Your task to perform on an android device: What's the weather today? Image 0: 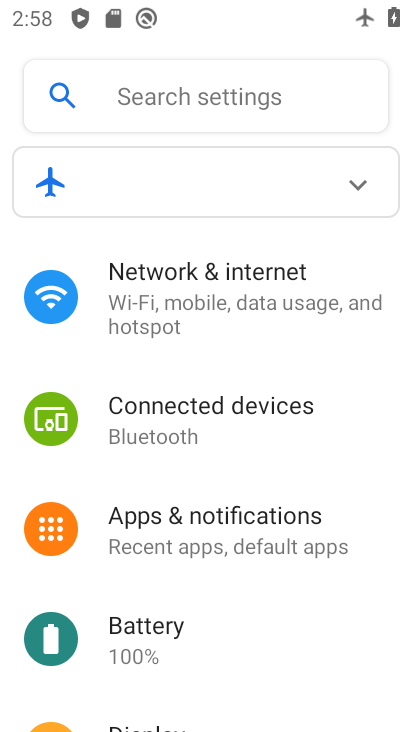
Step 0: press home button
Your task to perform on an android device: What's the weather today? Image 1: 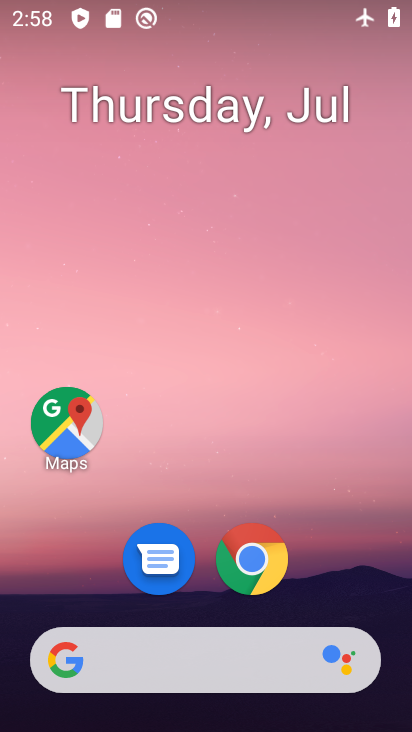
Step 1: drag from (295, 636) to (294, 164)
Your task to perform on an android device: What's the weather today? Image 2: 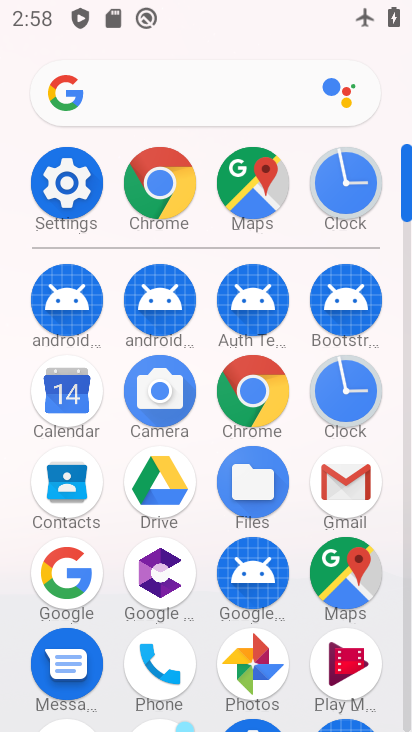
Step 2: click (81, 572)
Your task to perform on an android device: What's the weather today? Image 3: 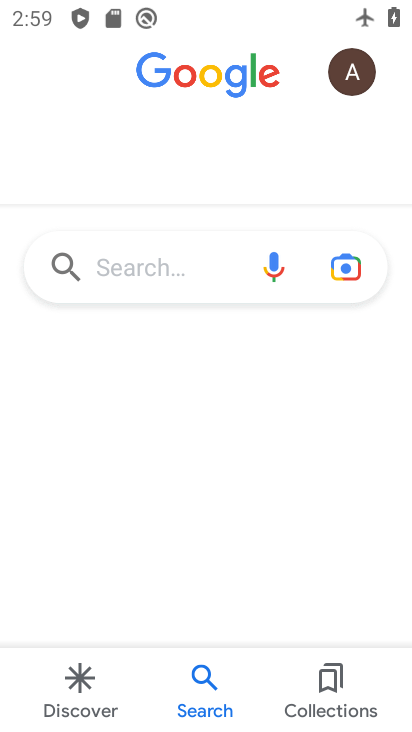
Step 3: click (179, 260)
Your task to perform on an android device: What's the weather today? Image 4: 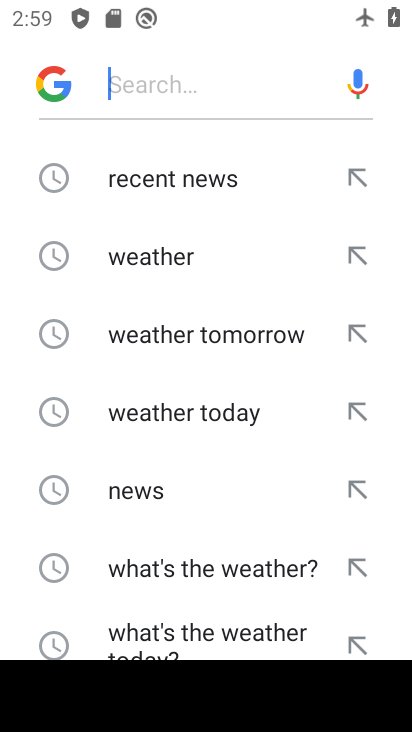
Step 4: click (186, 250)
Your task to perform on an android device: What's the weather today? Image 5: 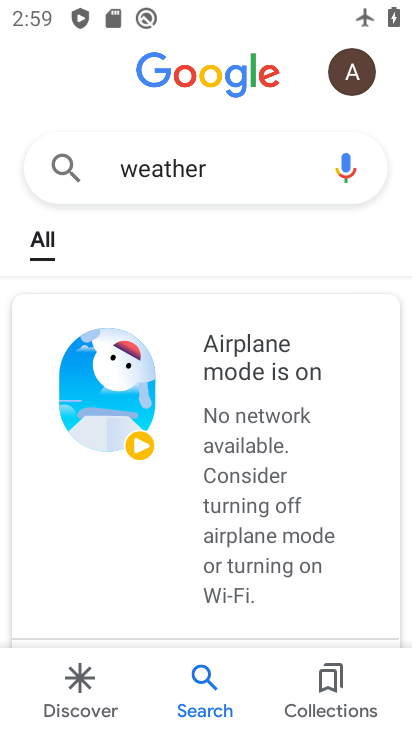
Step 5: task complete